Your task to perform on an android device: set the timer Image 0: 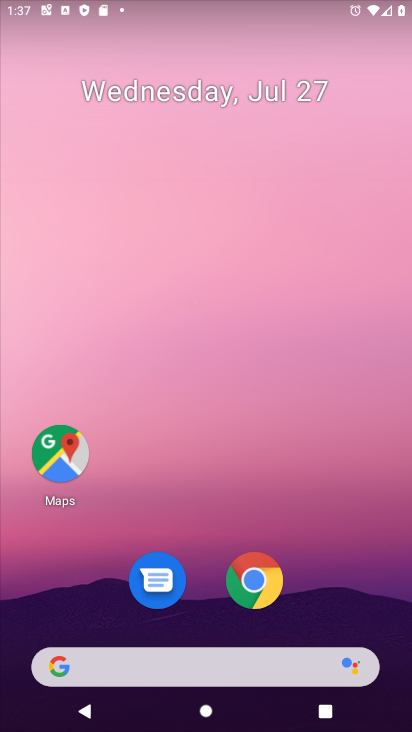
Step 0: drag from (282, 675) to (218, 87)
Your task to perform on an android device: set the timer Image 1: 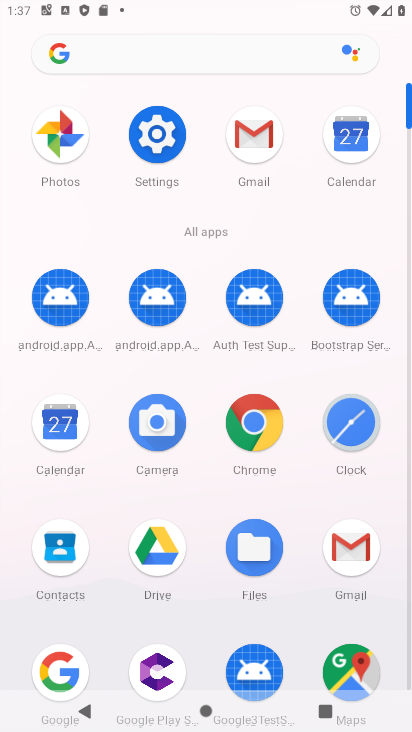
Step 1: click (352, 423)
Your task to perform on an android device: set the timer Image 2: 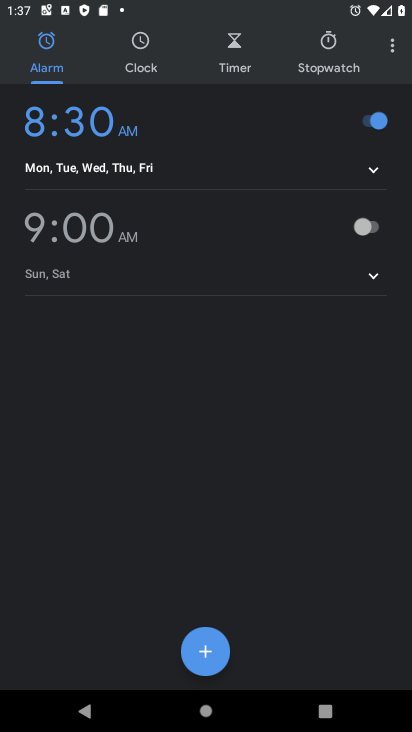
Step 2: click (231, 60)
Your task to perform on an android device: set the timer Image 3: 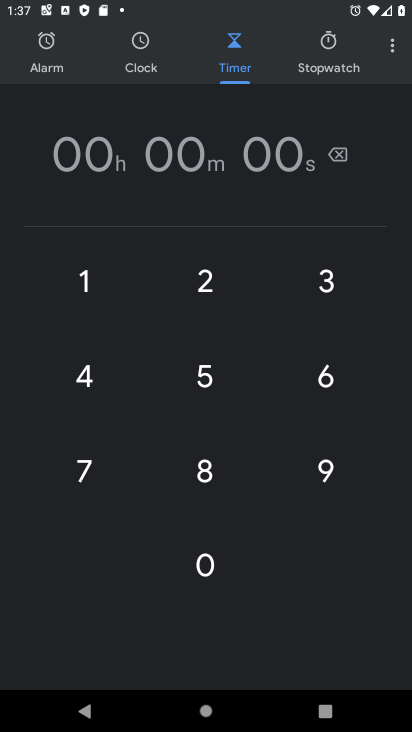
Step 3: click (202, 296)
Your task to perform on an android device: set the timer Image 4: 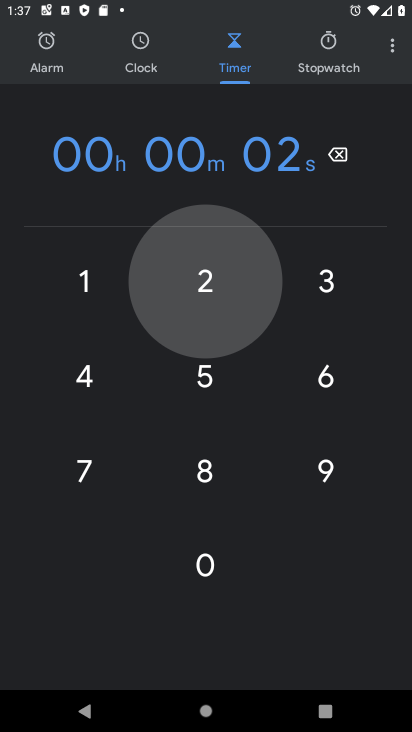
Step 4: click (97, 292)
Your task to perform on an android device: set the timer Image 5: 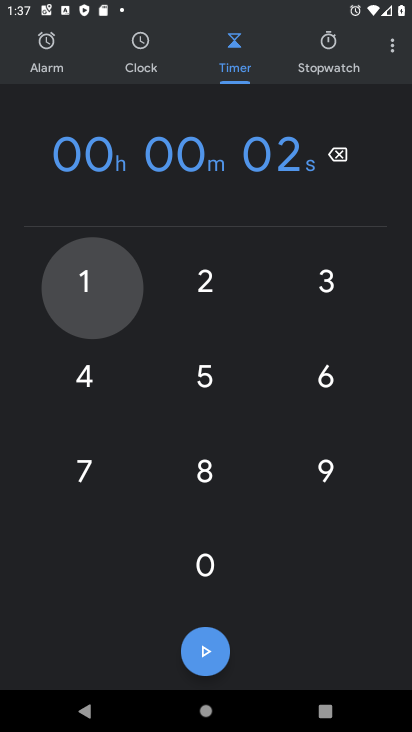
Step 5: click (72, 391)
Your task to perform on an android device: set the timer Image 6: 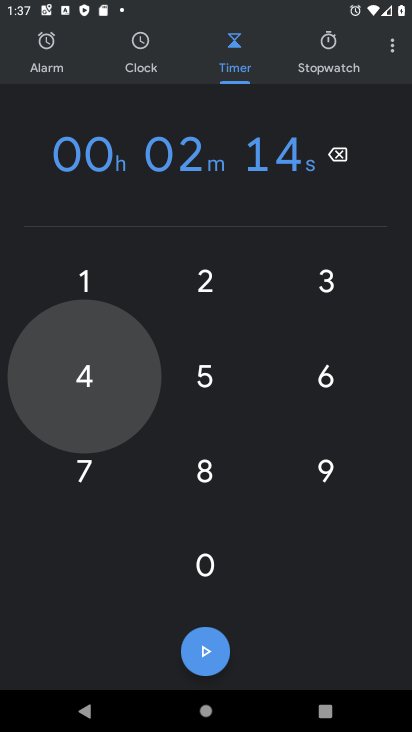
Step 6: click (51, 488)
Your task to perform on an android device: set the timer Image 7: 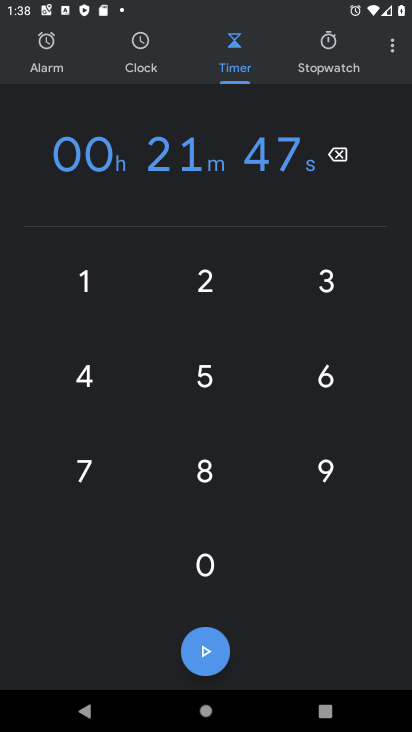
Step 7: click (318, 286)
Your task to perform on an android device: set the timer Image 8: 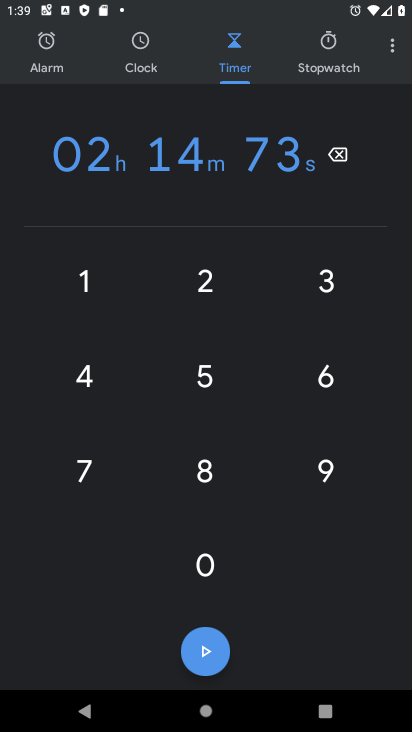
Step 8: task complete